Your task to perform on an android device: Open Youtube and go to "Your channel" Image 0: 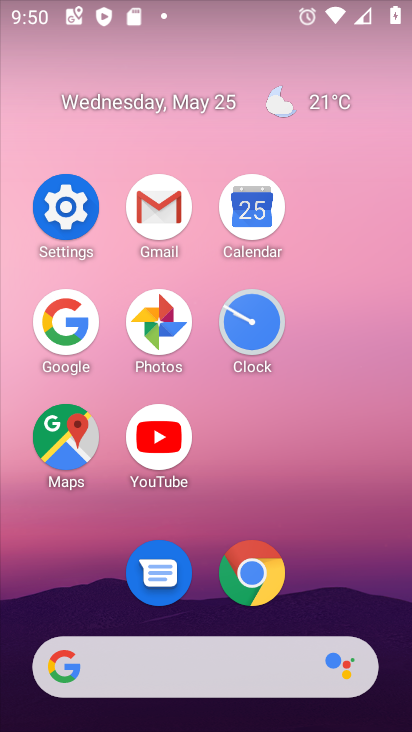
Step 0: click (170, 460)
Your task to perform on an android device: Open Youtube and go to "Your channel" Image 1: 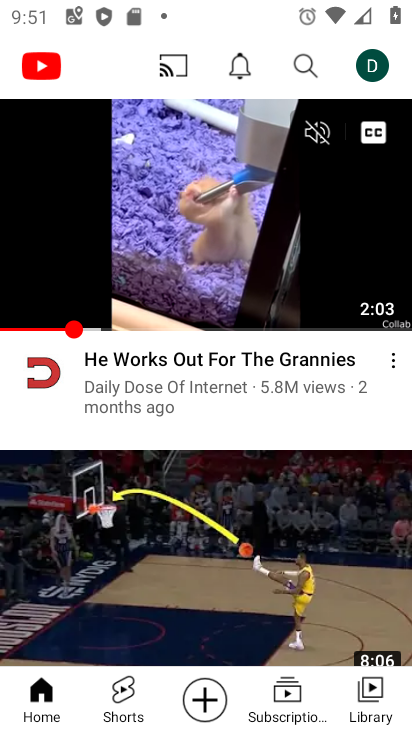
Step 1: click (376, 59)
Your task to perform on an android device: Open Youtube and go to "Your channel" Image 2: 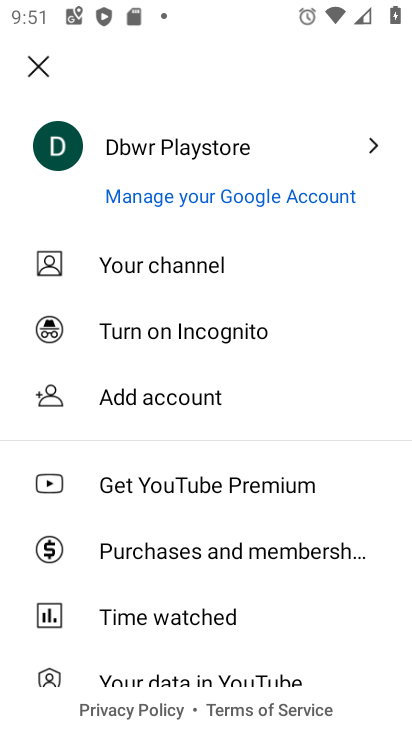
Step 2: click (251, 271)
Your task to perform on an android device: Open Youtube and go to "Your channel" Image 3: 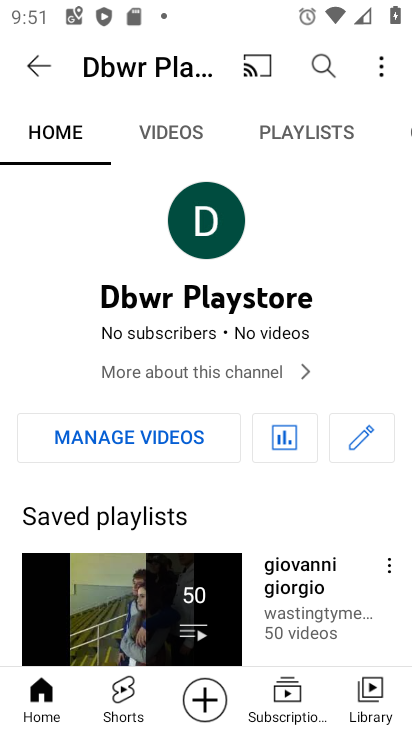
Step 3: task complete